Your task to perform on an android device: Open the phone app and click the voicemail tab. Image 0: 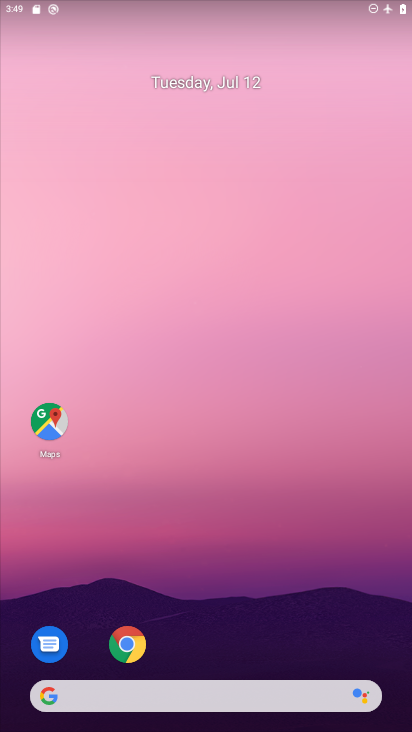
Step 0: drag from (278, 614) to (233, 99)
Your task to perform on an android device: Open the phone app and click the voicemail tab. Image 1: 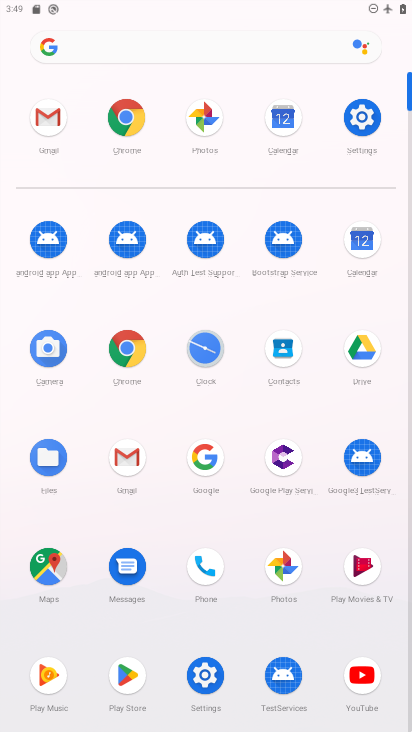
Step 1: click (201, 569)
Your task to perform on an android device: Open the phone app and click the voicemail tab. Image 2: 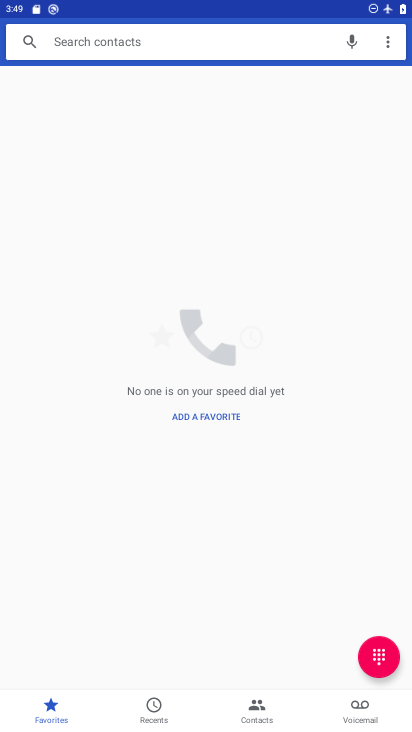
Step 2: click (364, 716)
Your task to perform on an android device: Open the phone app and click the voicemail tab. Image 3: 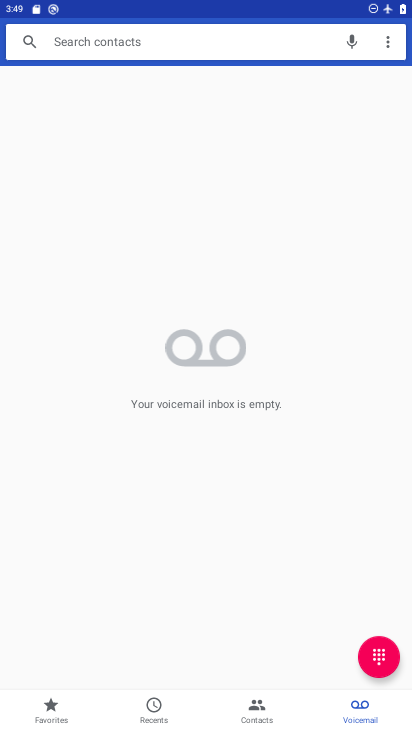
Step 3: task complete